Your task to perform on an android device: Search for razer kraken on amazon.com, select the first entry, and add it to the cart. Image 0: 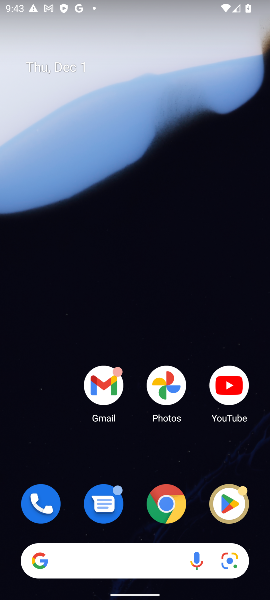
Step 0: click (162, 504)
Your task to perform on an android device: Search for razer kraken on amazon.com, select the first entry, and add it to the cart. Image 1: 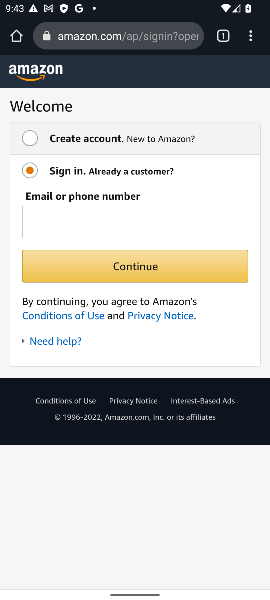
Step 1: click (36, 68)
Your task to perform on an android device: Search for razer kraken on amazon.com, select the first entry, and add it to the cart. Image 2: 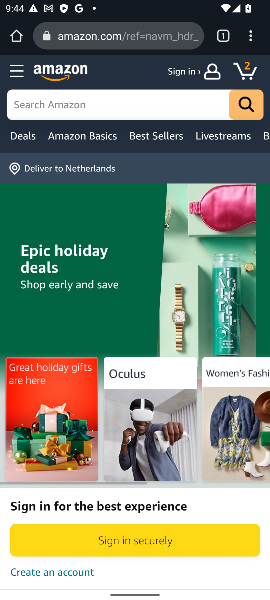
Step 2: click (71, 109)
Your task to perform on an android device: Search for razer kraken on amazon.com, select the first entry, and add it to the cart. Image 3: 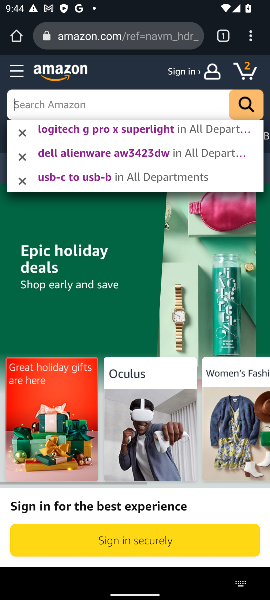
Step 3: type "razer kraken"
Your task to perform on an android device: Search for razer kraken on amazon.com, select the first entry, and add it to the cart. Image 4: 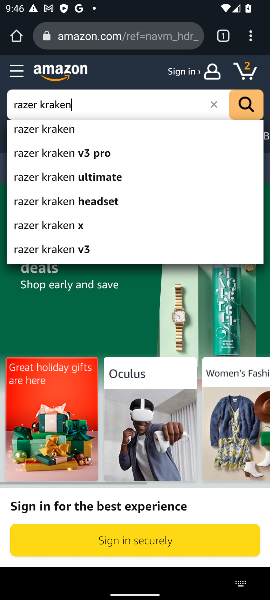
Step 4: click (60, 130)
Your task to perform on an android device: Search for razer kraken on amazon.com, select the first entry, and add it to the cart. Image 5: 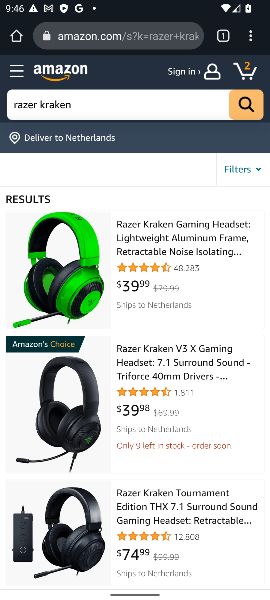
Step 5: click (67, 258)
Your task to perform on an android device: Search for razer kraken on amazon.com, select the first entry, and add it to the cart. Image 6: 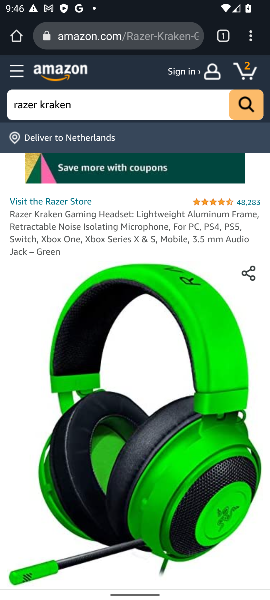
Step 6: drag from (168, 554) to (162, 150)
Your task to perform on an android device: Search for razer kraken on amazon.com, select the first entry, and add it to the cart. Image 7: 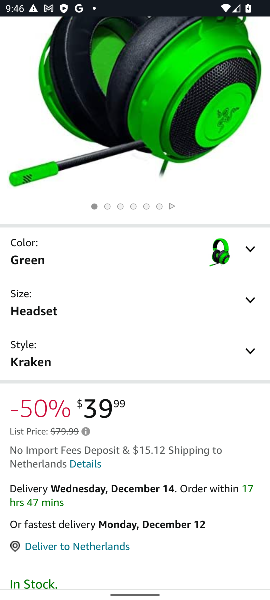
Step 7: drag from (161, 556) to (131, 114)
Your task to perform on an android device: Search for razer kraken on amazon.com, select the first entry, and add it to the cart. Image 8: 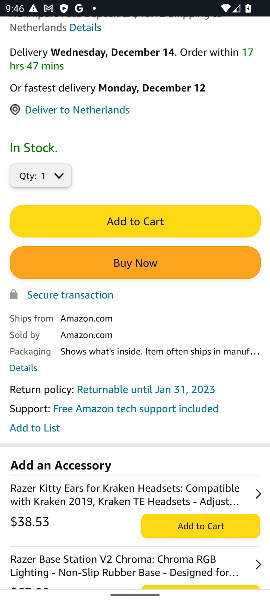
Step 8: click (130, 225)
Your task to perform on an android device: Search for razer kraken on amazon.com, select the first entry, and add it to the cart. Image 9: 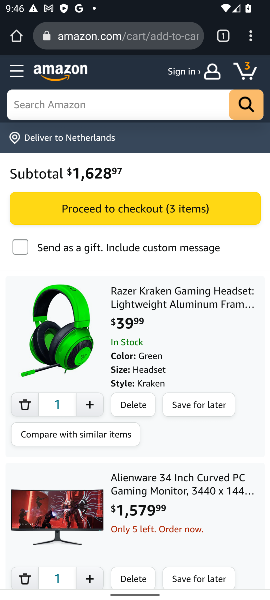
Step 9: task complete